Your task to perform on an android device: Open calendar and show me the third week of next month Image 0: 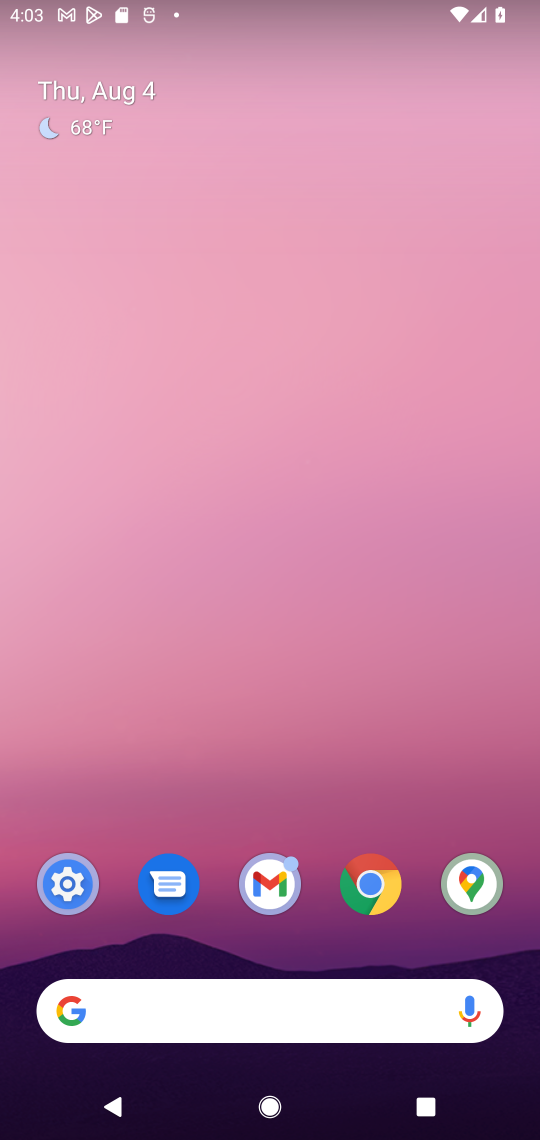
Step 0: drag from (248, 956) to (226, 94)
Your task to perform on an android device: Open calendar and show me the third week of next month Image 1: 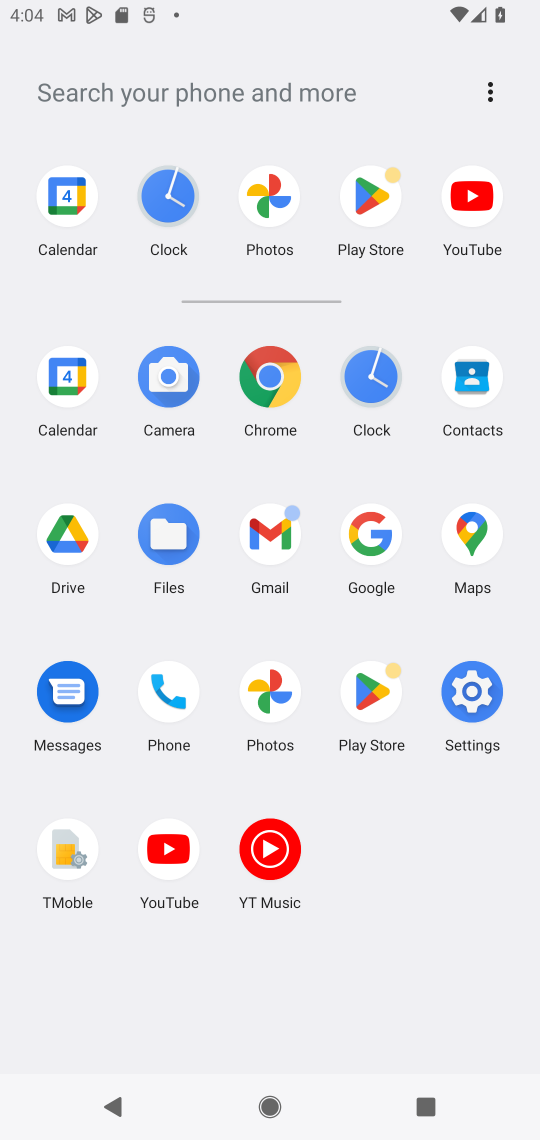
Step 1: click (88, 423)
Your task to perform on an android device: Open calendar and show me the third week of next month Image 2: 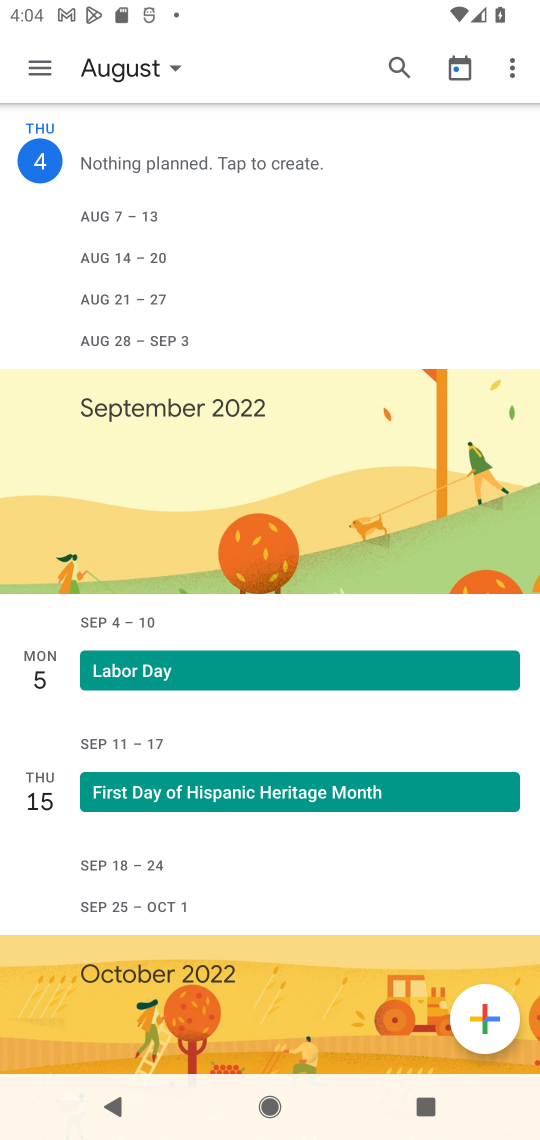
Step 2: task complete